Your task to perform on an android device: toggle show notifications on the lock screen Image 0: 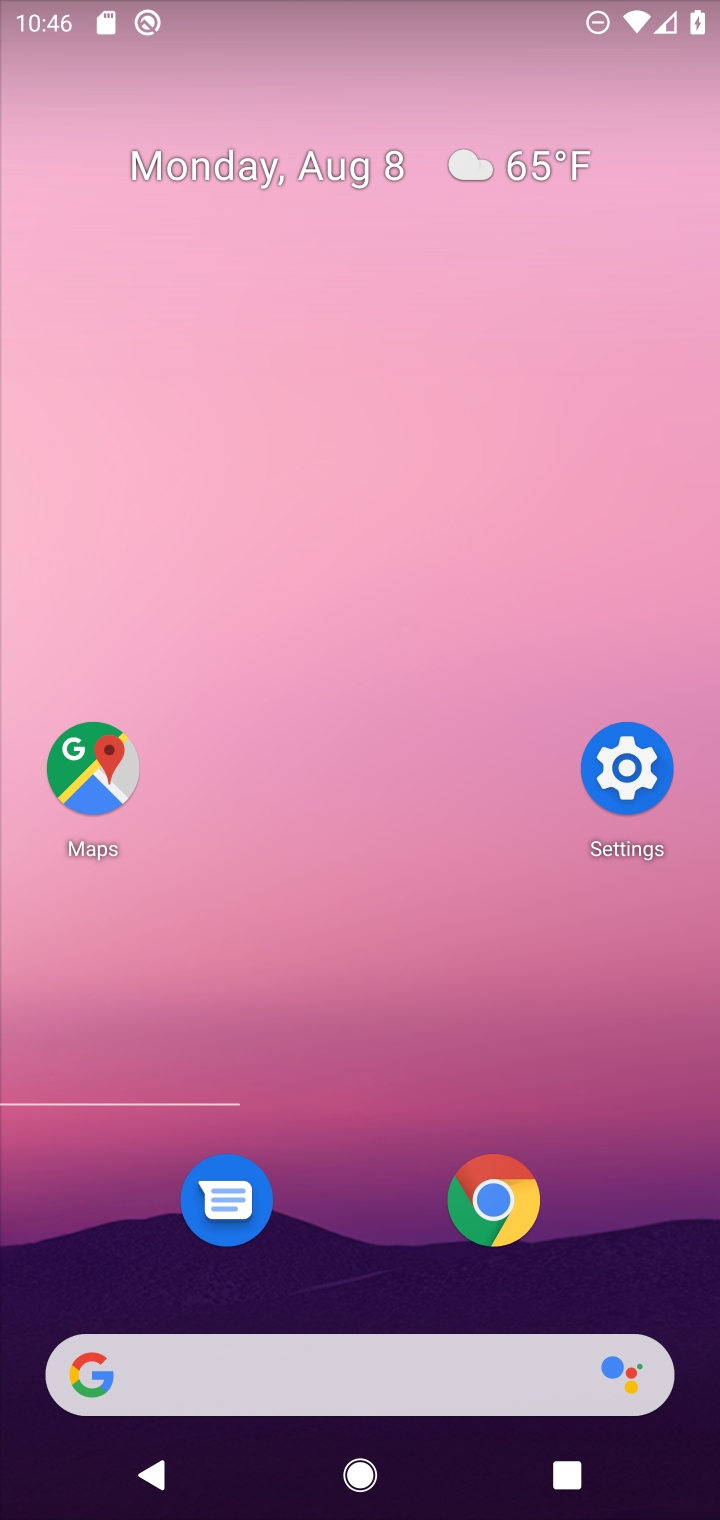
Step 0: press home button
Your task to perform on an android device: toggle show notifications on the lock screen Image 1: 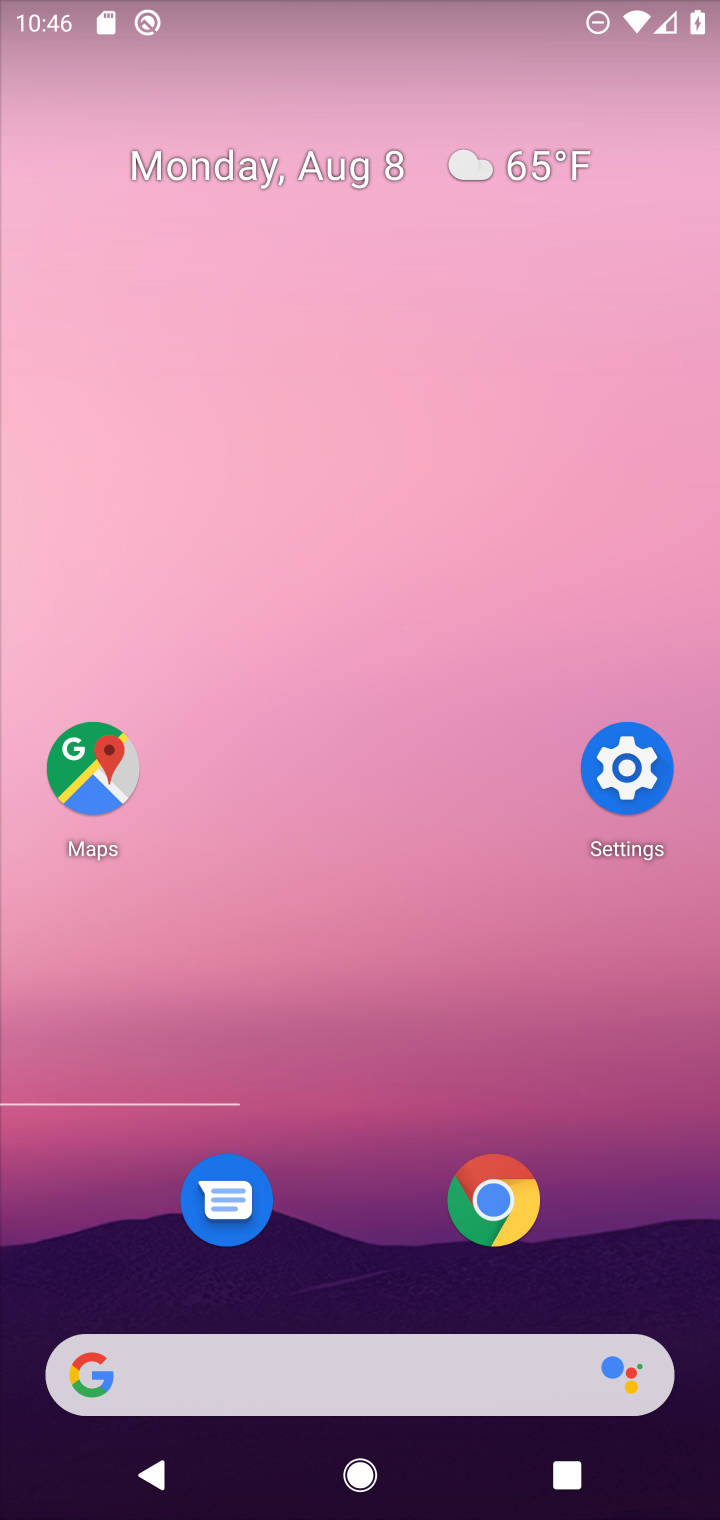
Step 1: click (624, 760)
Your task to perform on an android device: toggle show notifications on the lock screen Image 2: 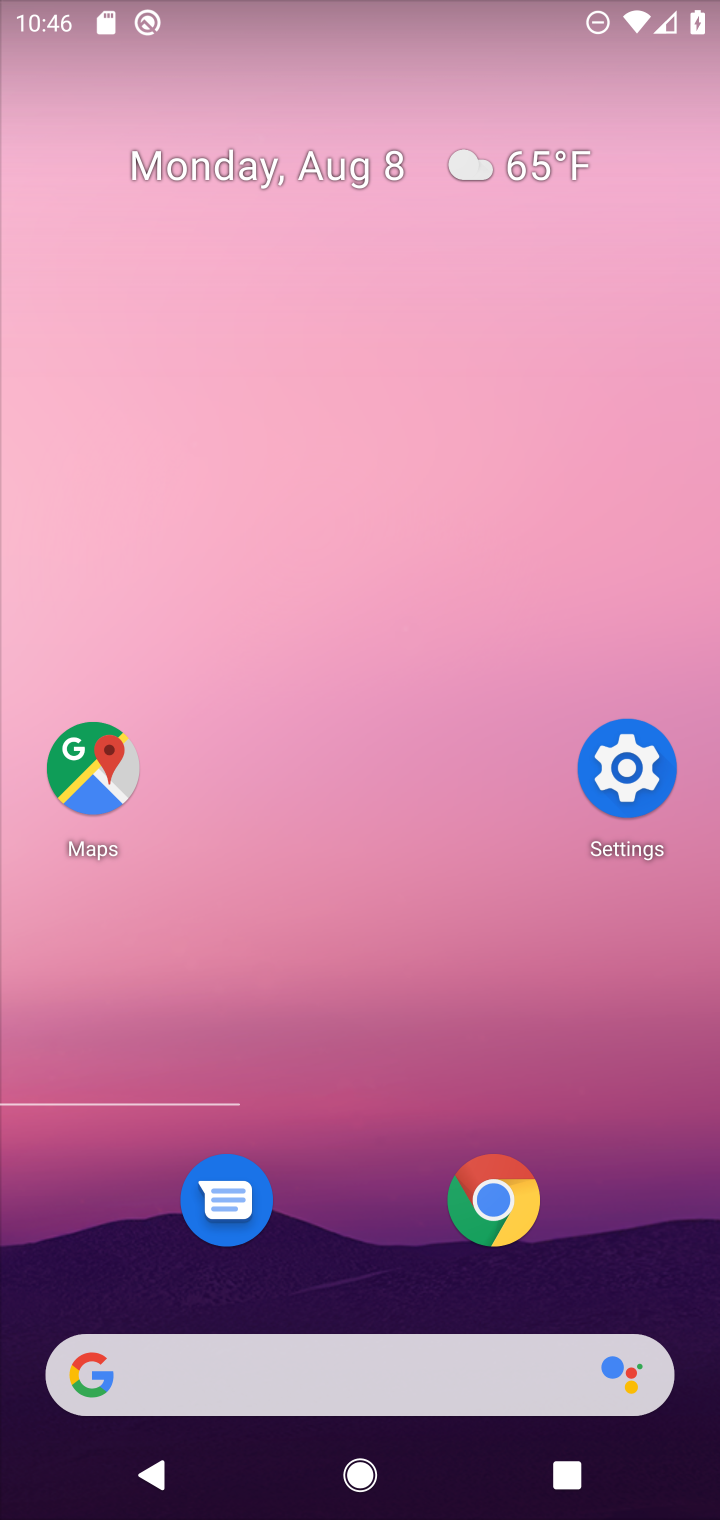
Step 2: click (624, 771)
Your task to perform on an android device: toggle show notifications on the lock screen Image 3: 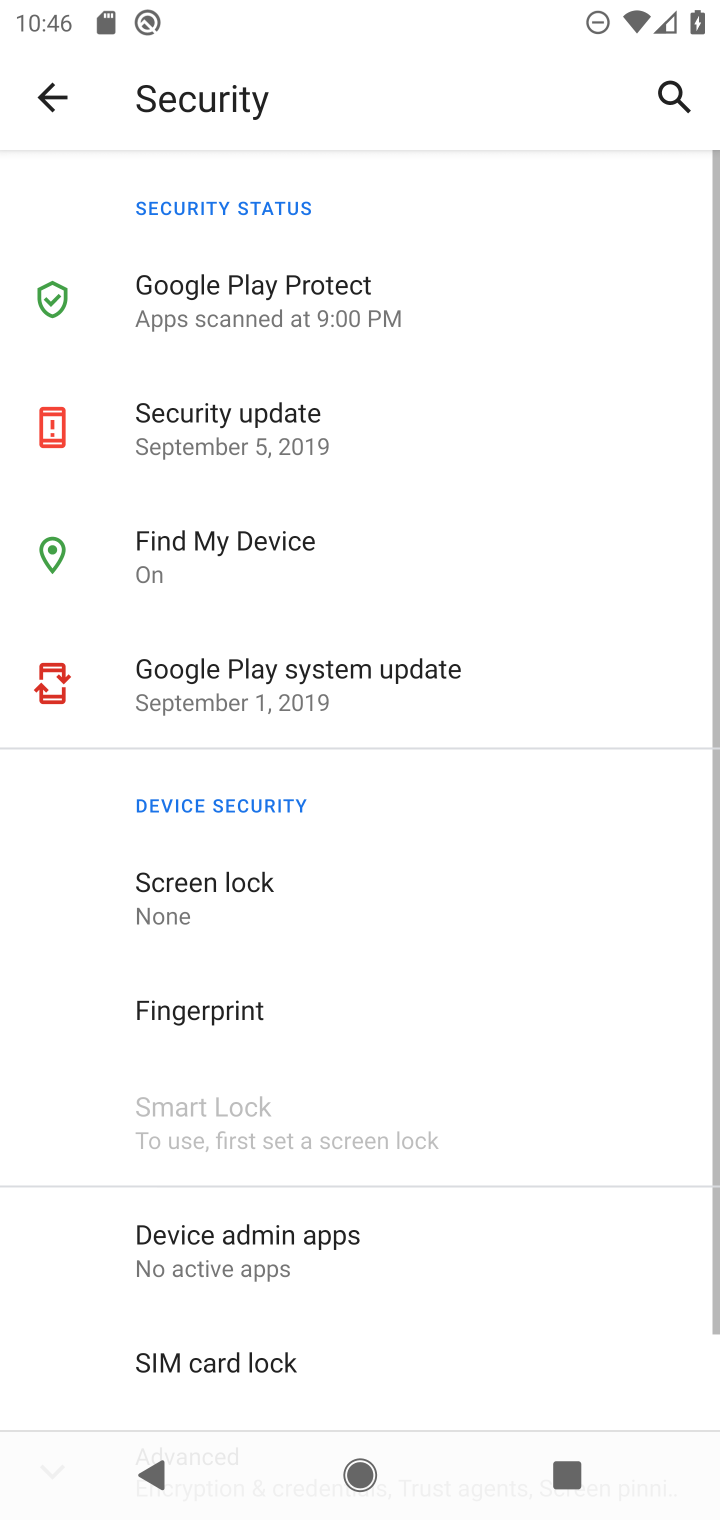
Step 3: click (57, 100)
Your task to perform on an android device: toggle show notifications on the lock screen Image 4: 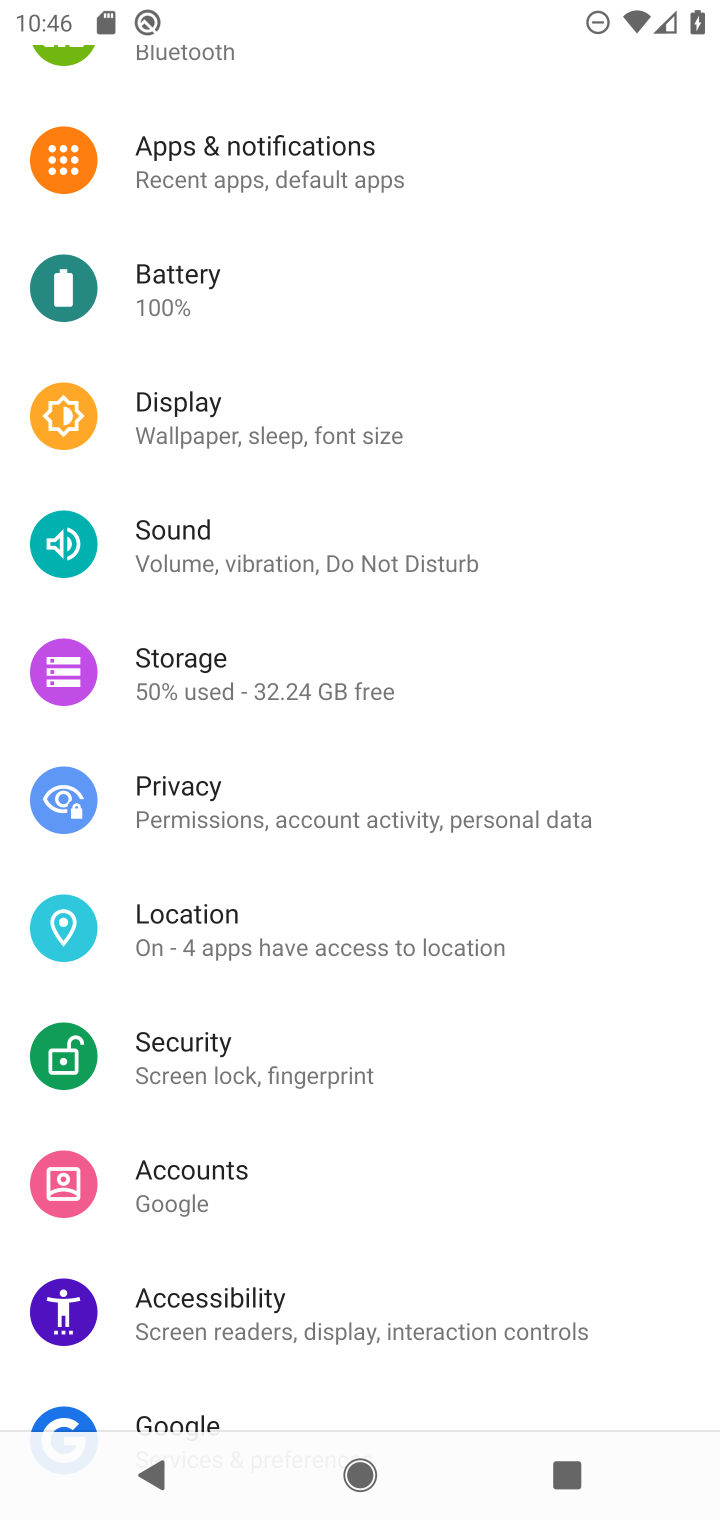
Step 4: drag from (606, 229) to (525, 1205)
Your task to perform on an android device: toggle show notifications on the lock screen Image 5: 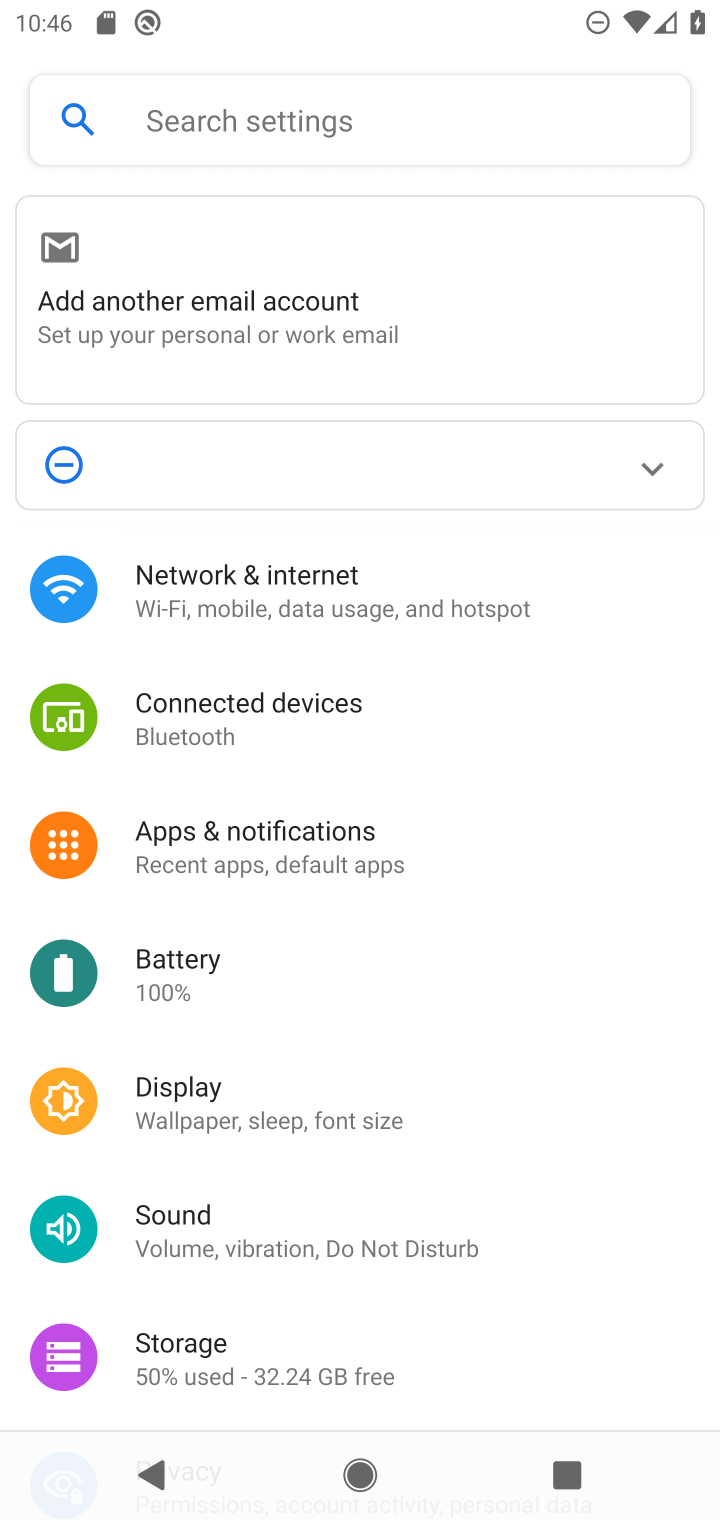
Step 5: click (300, 842)
Your task to perform on an android device: toggle show notifications on the lock screen Image 6: 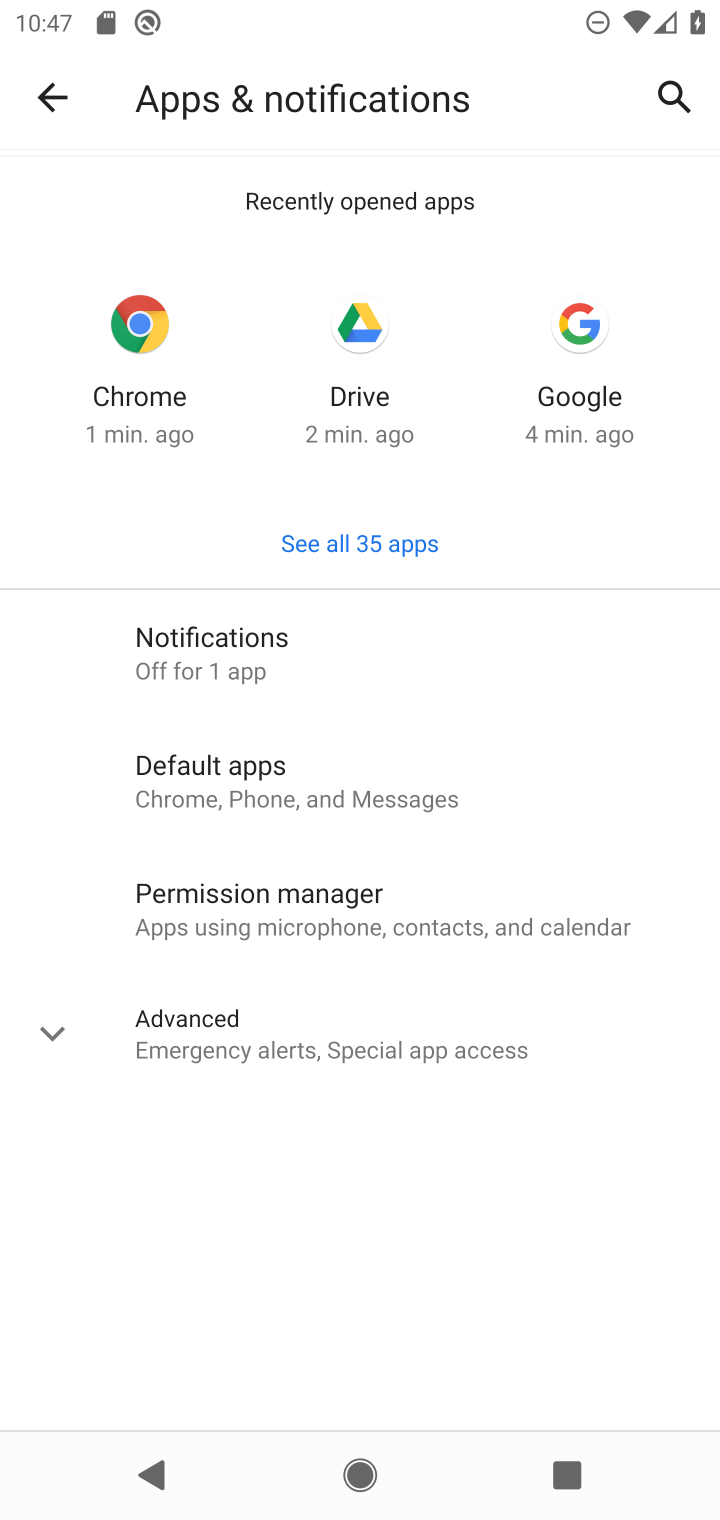
Step 6: click (207, 645)
Your task to perform on an android device: toggle show notifications on the lock screen Image 7: 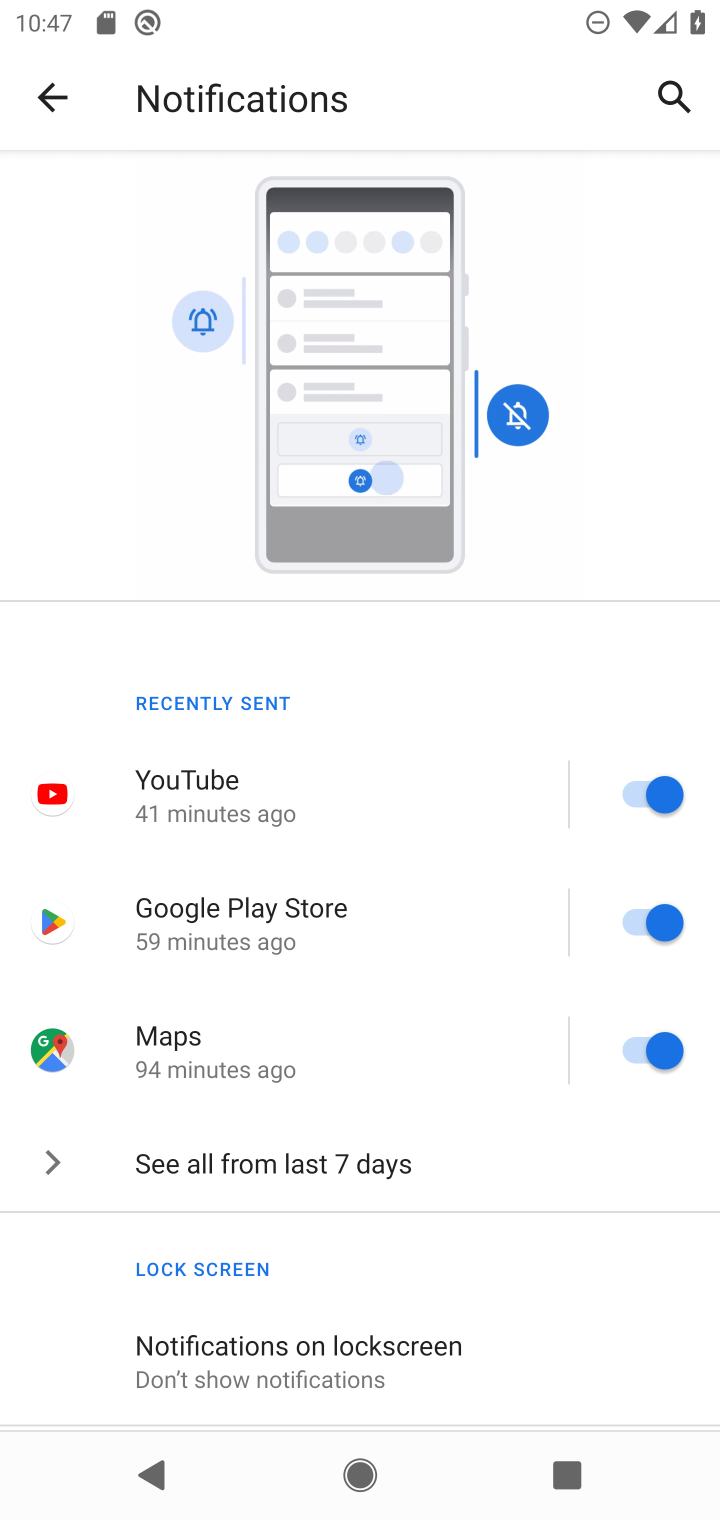
Step 7: click (372, 1352)
Your task to perform on an android device: toggle show notifications on the lock screen Image 8: 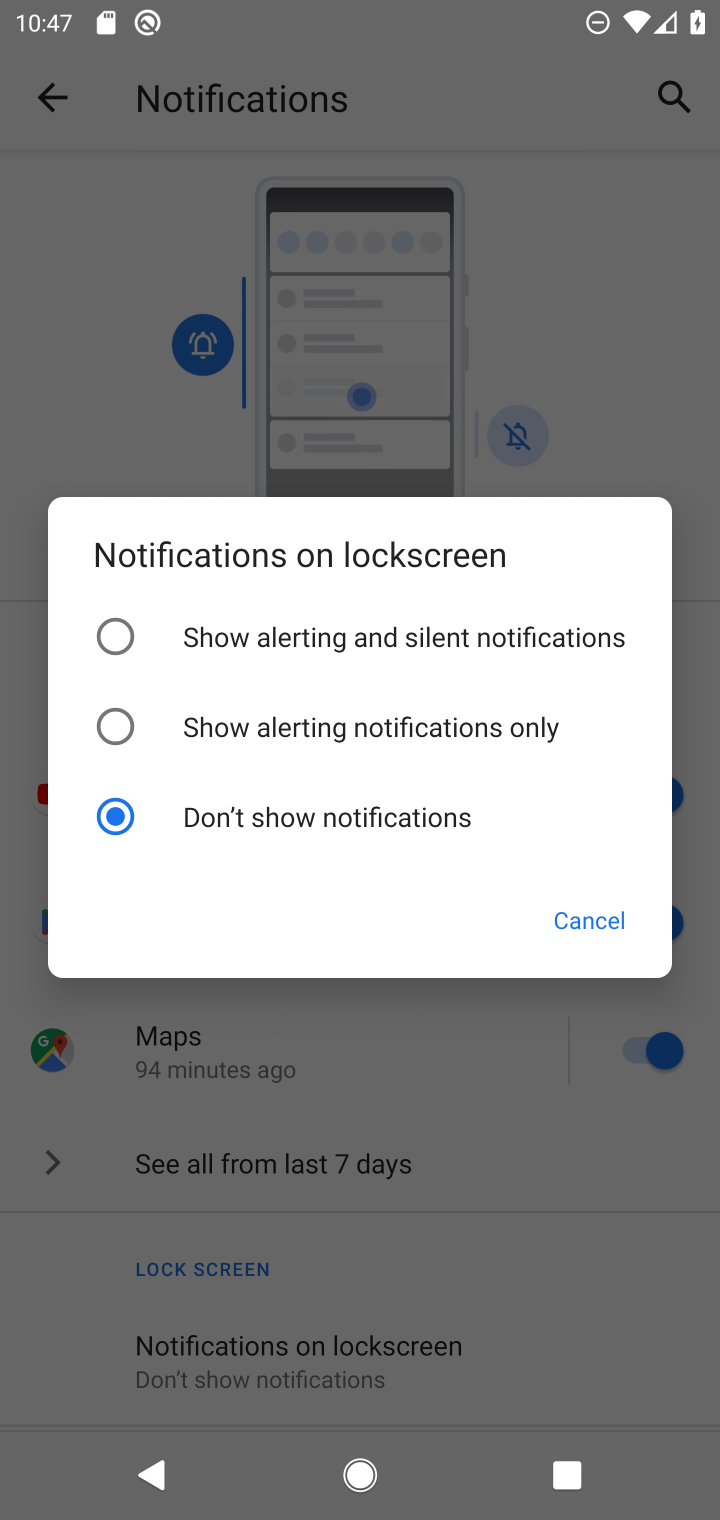
Step 8: click (117, 629)
Your task to perform on an android device: toggle show notifications on the lock screen Image 9: 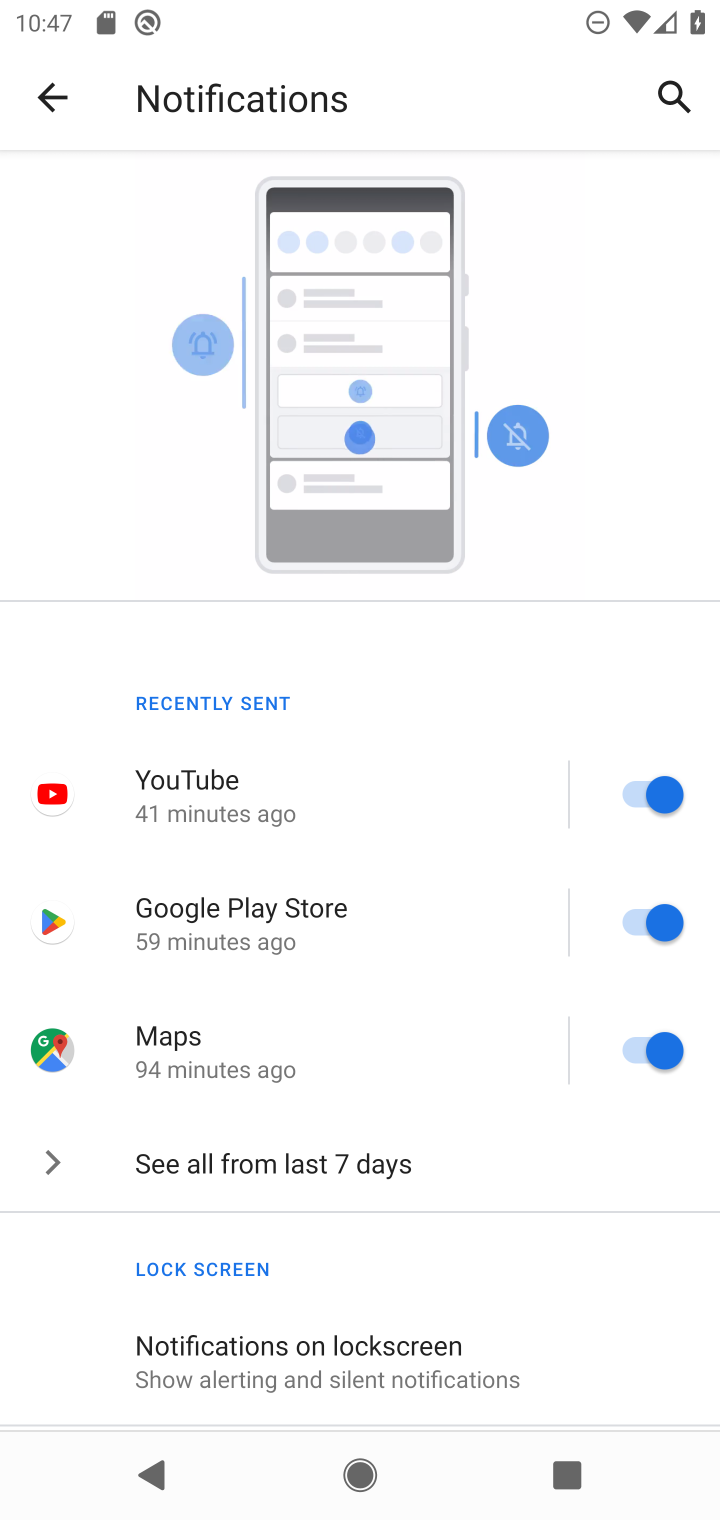
Step 9: task complete